Your task to perform on an android device: change keyboard looks Image 0: 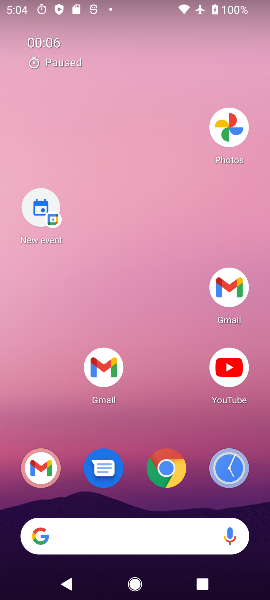
Step 0: click (128, 26)
Your task to perform on an android device: change keyboard looks Image 1: 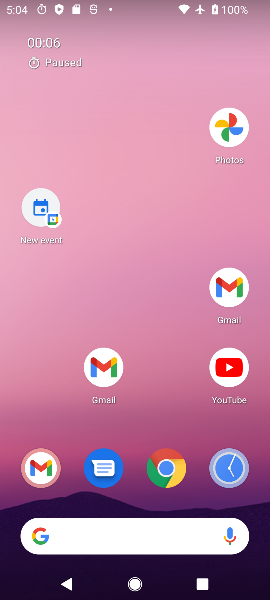
Step 1: click (131, 97)
Your task to perform on an android device: change keyboard looks Image 2: 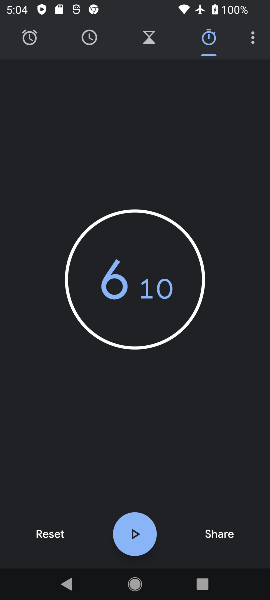
Step 2: press back button
Your task to perform on an android device: change keyboard looks Image 3: 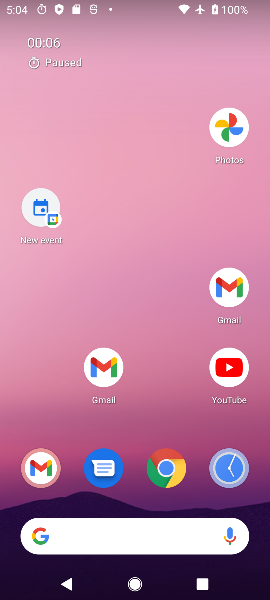
Step 3: drag from (159, 415) to (159, 155)
Your task to perform on an android device: change keyboard looks Image 4: 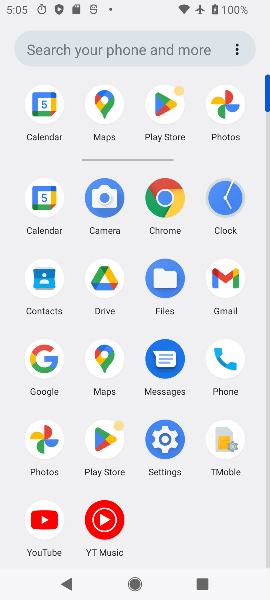
Step 4: click (168, 438)
Your task to perform on an android device: change keyboard looks Image 5: 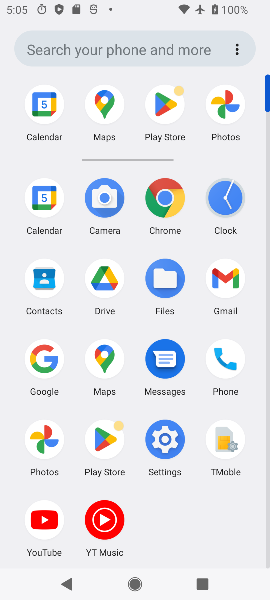
Step 5: click (168, 438)
Your task to perform on an android device: change keyboard looks Image 6: 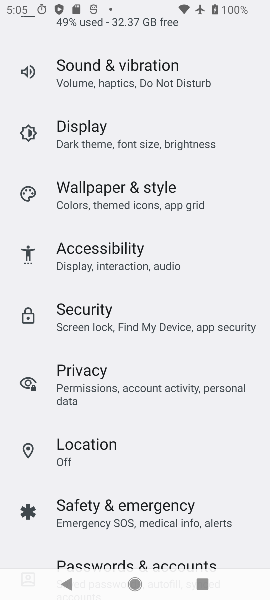
Step 6: drag from (105, 344) to (105, 248)
Your task to perform on an android device: change keyboard looks Image 7: 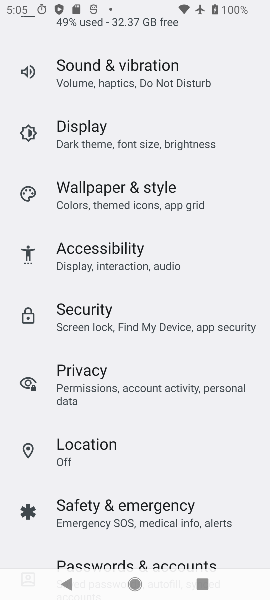
Step 7: drag from (137, 379) to (133, 209)
Your task to perform on an android device: change keyboard looks Image 8: 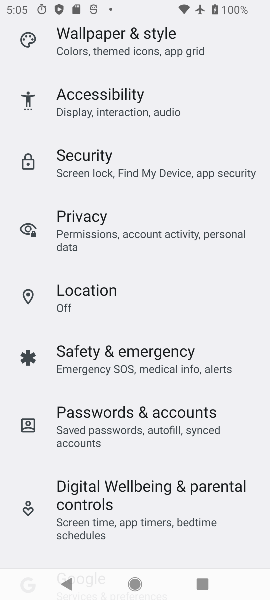
Step 8: drag from (78, 412) to (76, 146)
Your task to perform on an android device: change keyboard looks Image 9: 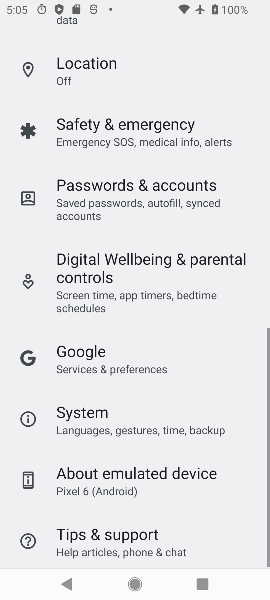
Step 9: drag from (114, 337) to (114, 183)
Your task to perform on an android device: change keyboard looks Image 10: 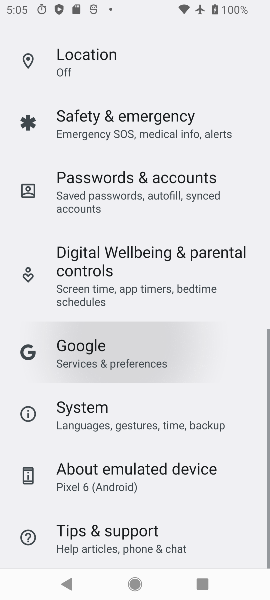
Step 10: drag from (134, 333) to (134, 253)
Your task to perform on an android device: change keyboard looks Image 11: 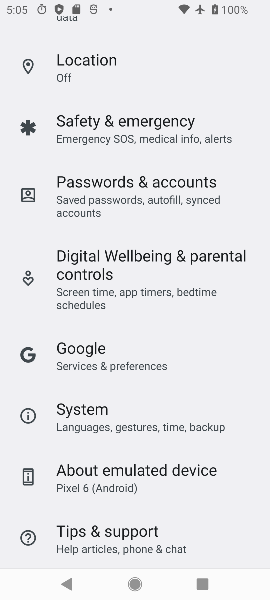
Step 11: click (87, 416)
Your task to perform on an android device: change keyboard looks Image 12: 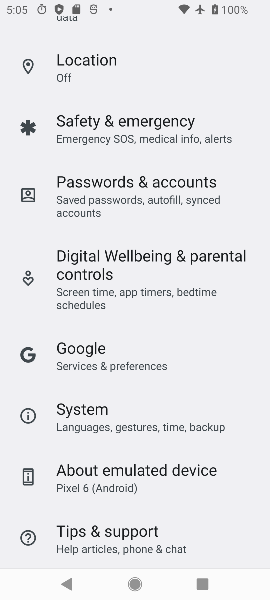
Step 12: click (87, 416)
Your task to perform on an android device: change keyboard looks Image 13: 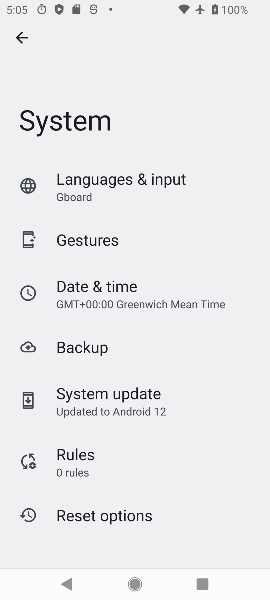
Step 13: drag from (124, 358) to (110, 135)
Your task to perform on an android device: change keyboard looks Image 14: 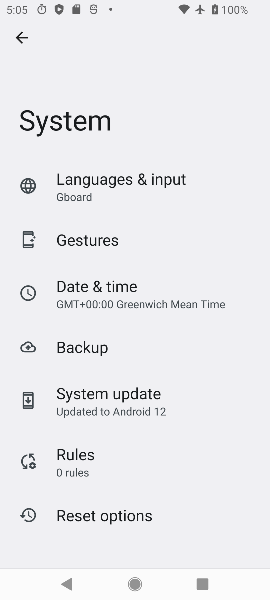
Step 14: click (71, 192)
Your task to perform on an android device: change keyboard looks Image 15: 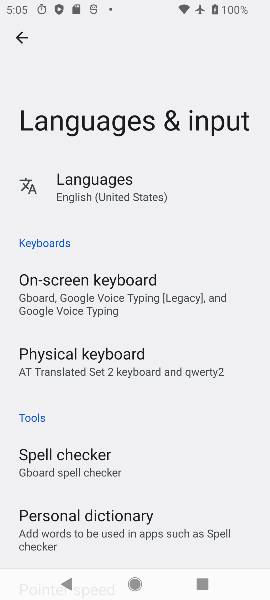
Step 15: click (79, 295)
Your task to perform on an android device: change keyboard looks Image 16: 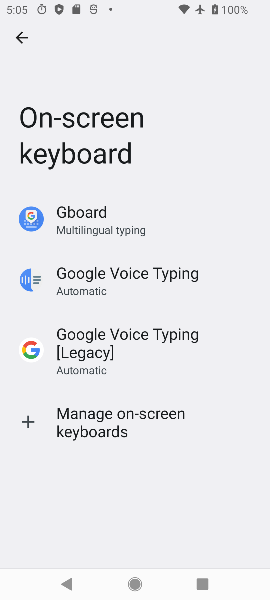
Step 16: click (79, 217)
Your task to perform on an android device: change keyboard looks Image 17: 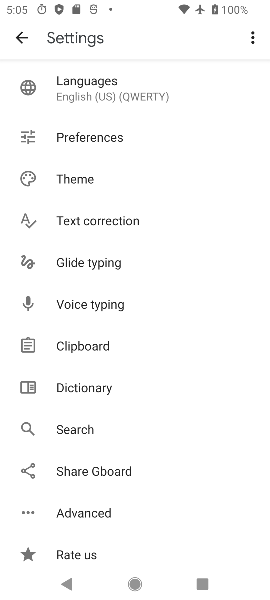
Step 17: click (68, 177)
Your task to perform on an android device: change keyboard looks Image 18: 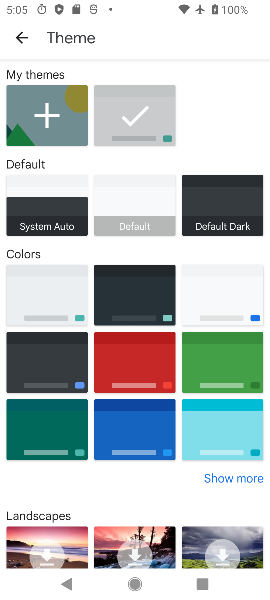
Step 18: click (127, 299)
Your task to perform on an android device: change keyboard looks Image 19: 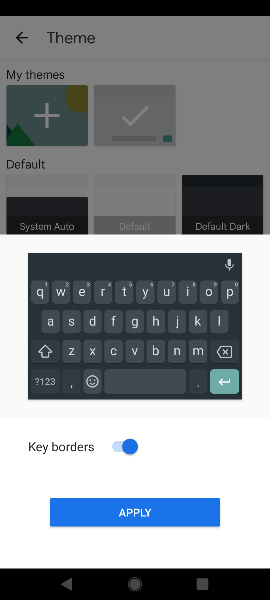
Step 19: click (144, 506)
Your task to perform on an android device: change keyboard looks Image 20: 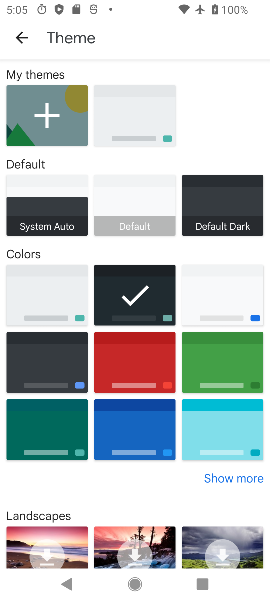
Step 20: task complete